Your task to perform on an android device: turn on wifi Image 0: 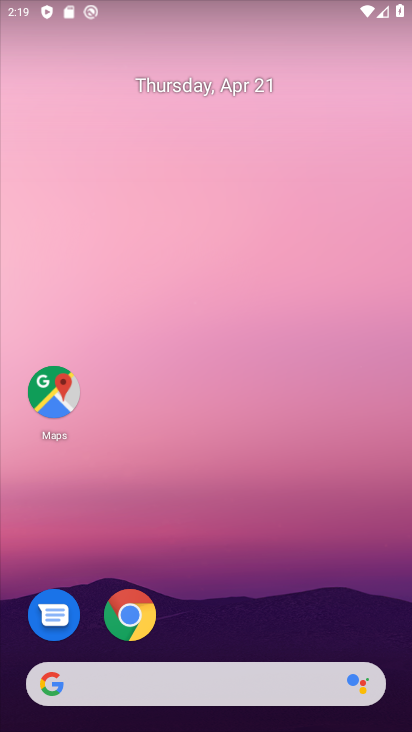
Step 0: drag from (158, 47) to (217, 543)
Your task to perform on an android device: turn on wifi Image 1: 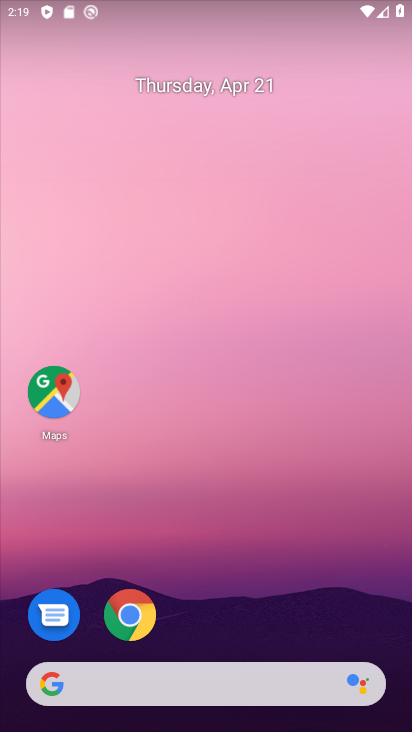
Step 1: task complete